Your task to perform on an android device: see tabs open on other devices in the chrome app Image 0: 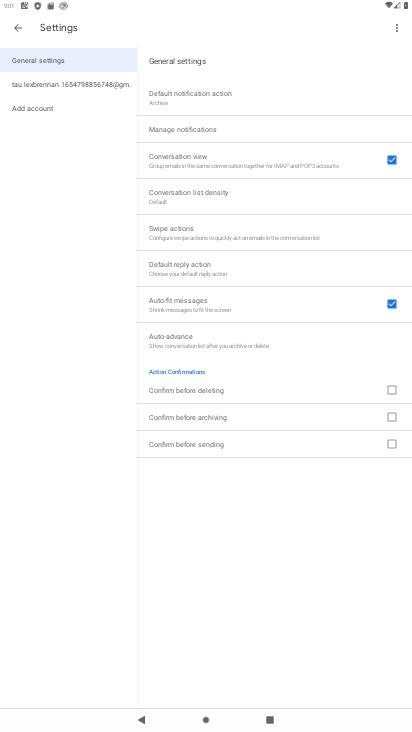
Step 0: press home button
Your task to perform on an android device: see tabs open on other devices in the chrome app Image 1: 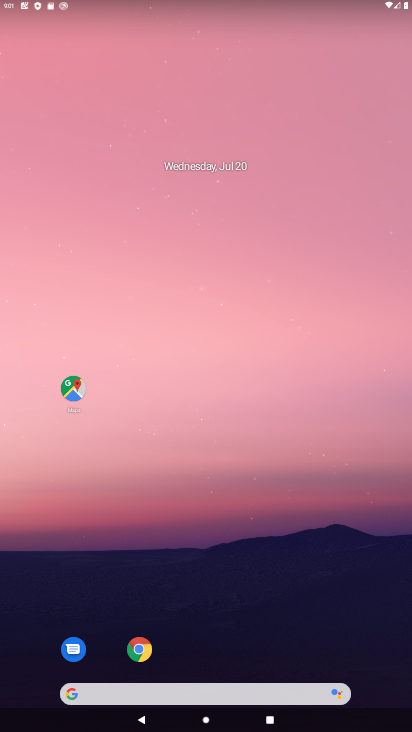
Step 1: click (142, 658)
Your task to perform on an android device: see tabs open on other devices in the chrome app Image 2: 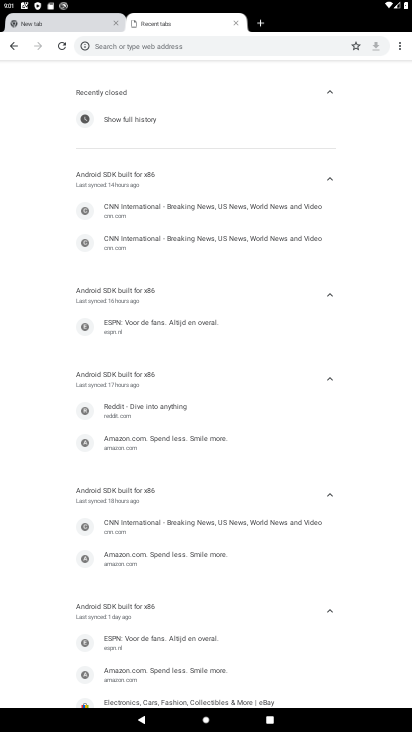
Step 2: task complete